Your task to perform on an android device: Open the map Image 0: 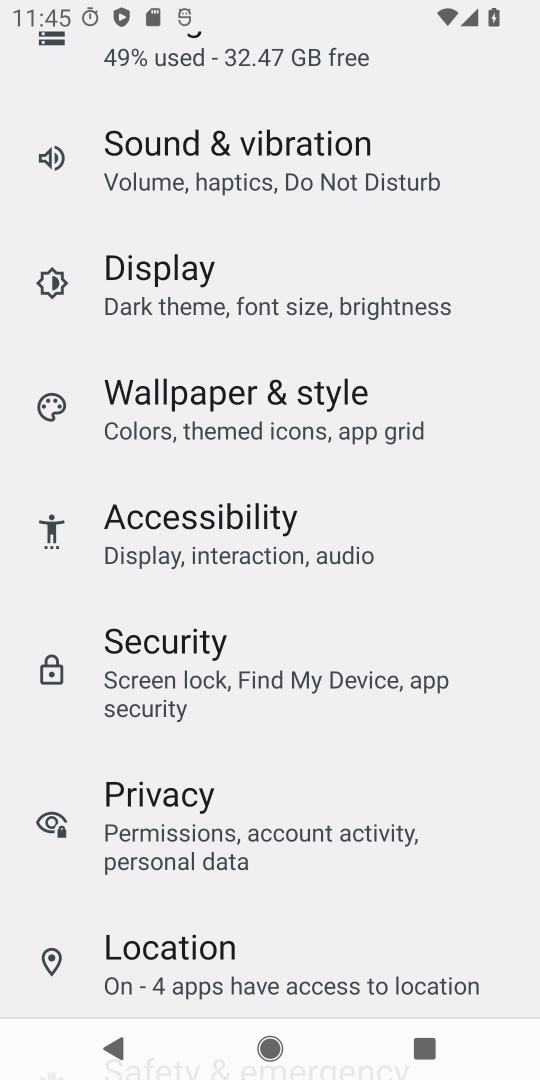
Step 0: press home button
Your task to perform on an android device: Open the map Image 1: 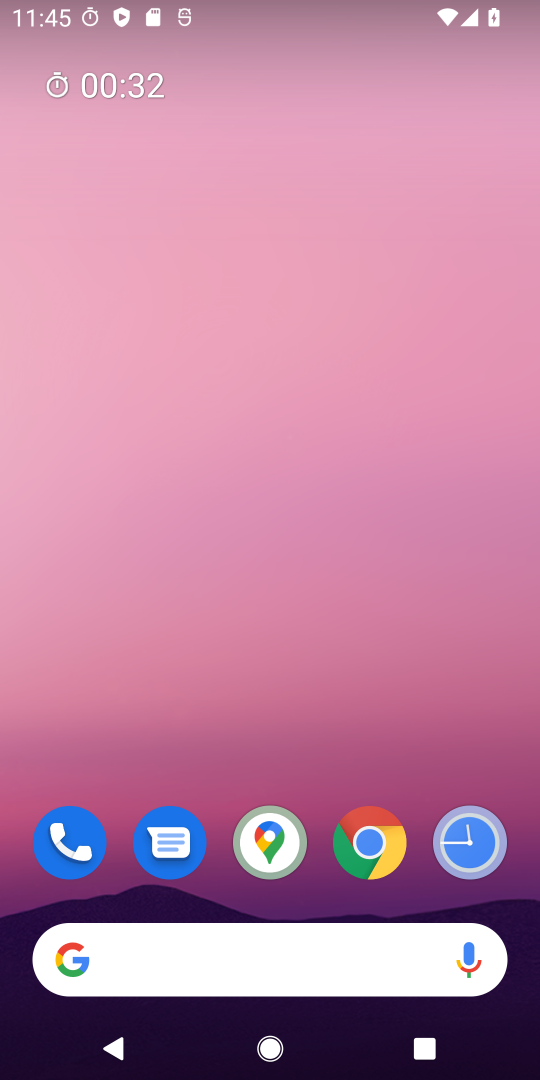
Step 1: click (285, 831)
Your task to perform on an android device: Open the map Image 2: 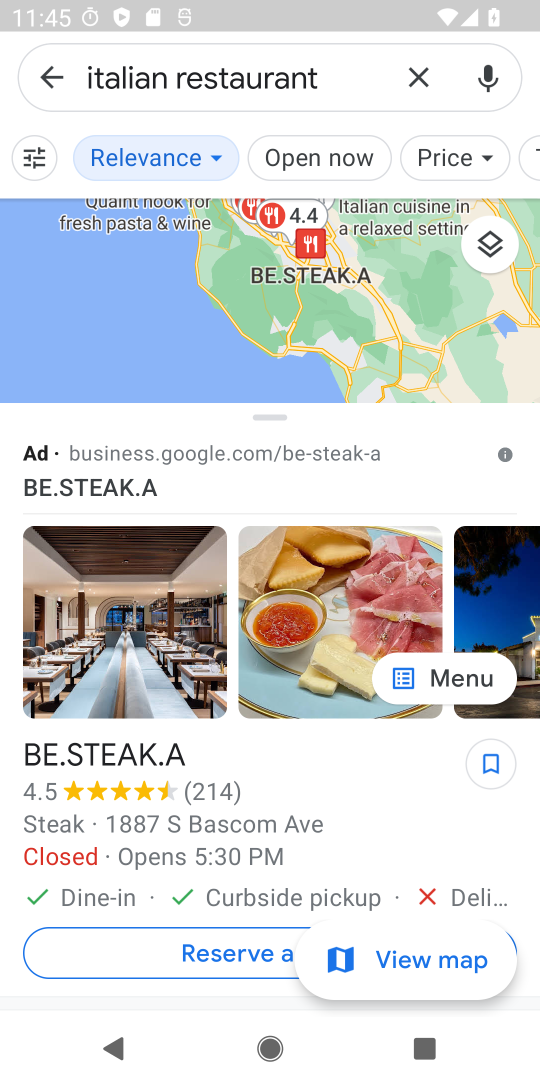
Step 2: task complete